Your task to perform on an android device: What is the recent news? Image 0: 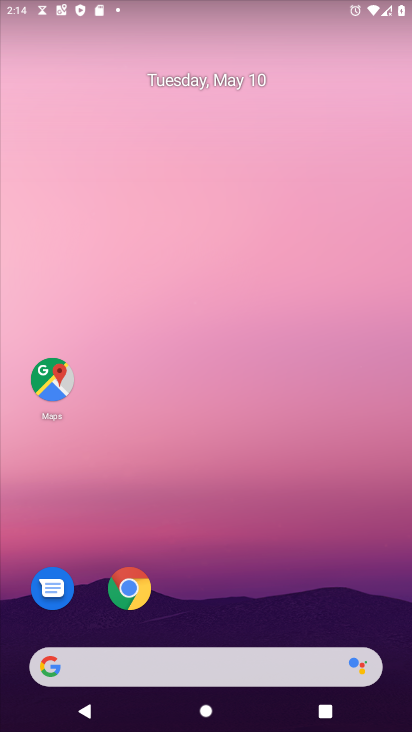
Step 0: drag from (201, 472) to (206, 324)
Your task to perform on an android device: What is the recent news? Image 1: 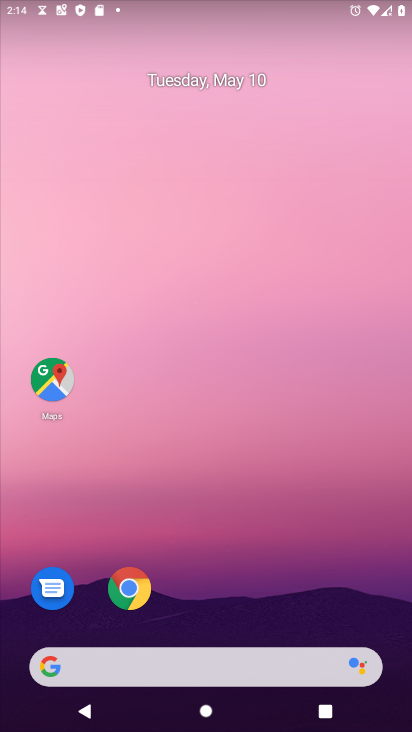
Step 1: drag from (238, 589) to (279, 248)
Your task to perform on an android device: What is the recent news? Image 2: 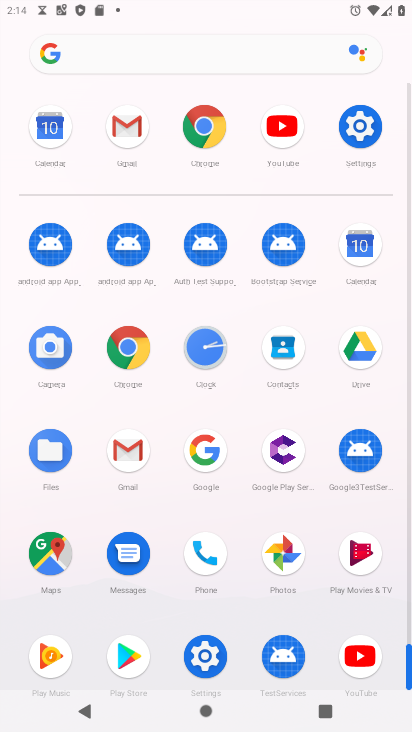
Step 2: click (203, 125)
Your task to perform on an android device: What is the recent news? Image 3: 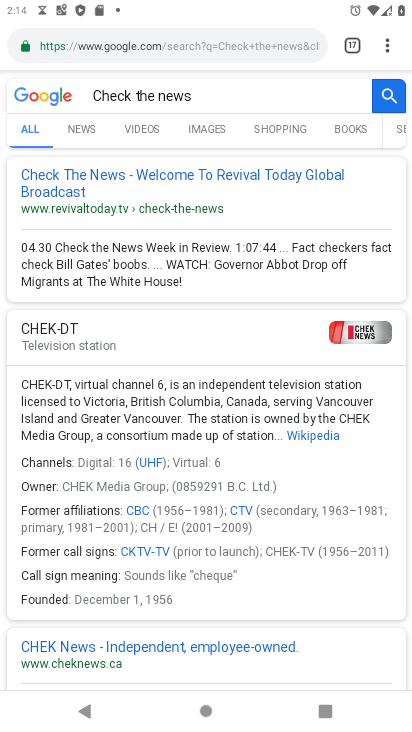
Step 3: click (381, 43)
Your task to perform on an android device: What is the recent news? Image 4: 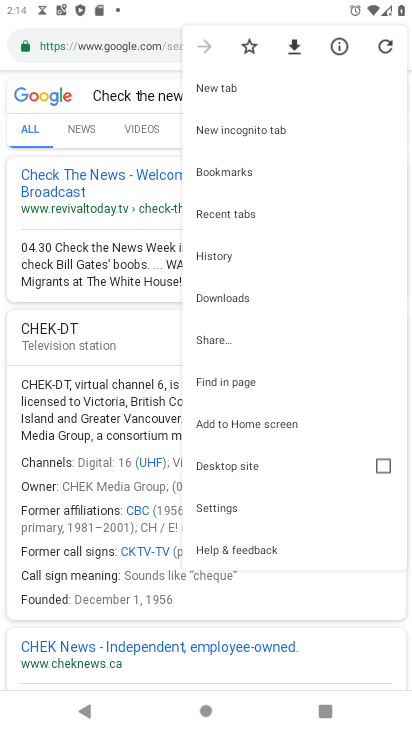
Step 4: click (243, 95)
Your task to perform on an android device: What is the recent news? Image 5: 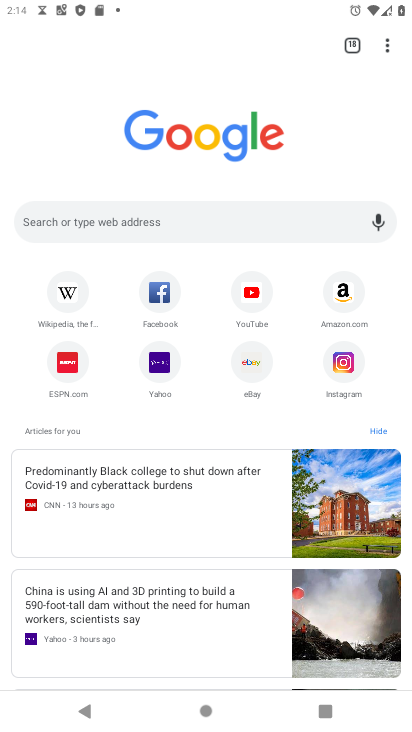
Step 5: click (149, 207)
Your task to perform on an android device: What is the recent news? Image 6: 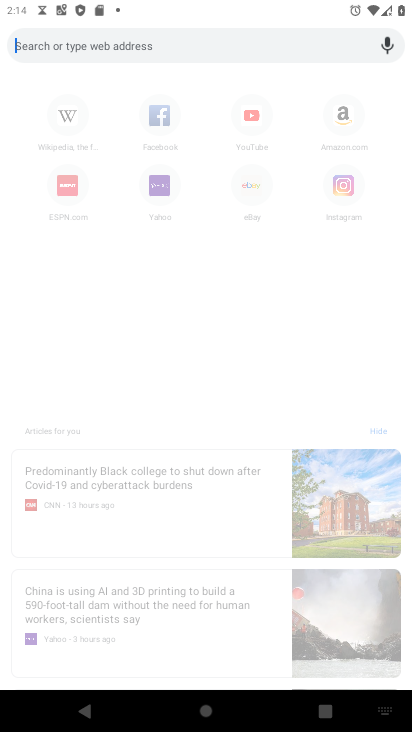
Step 6: click (240, 38)
Your task to perform on an android device: What is the recent news? Image 7: 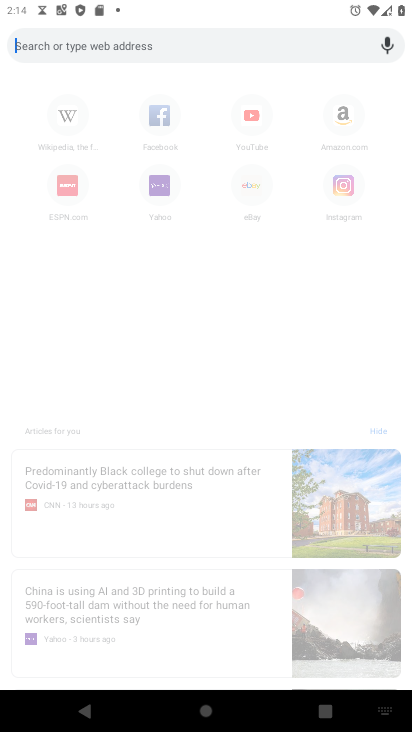
Step 7: type "What is the recent news?"
Your task to perform on an android device: What is the recent news? Image 8: 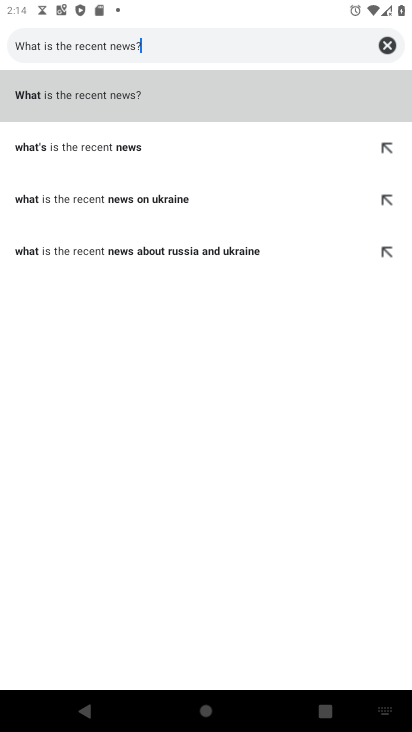
Step 8: click (125, 143)
Your task to perform on an android device: What is the recent news? Image 9: 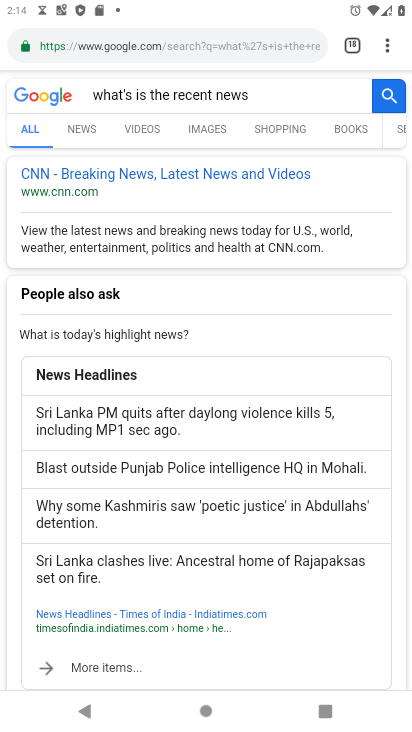
Step 9: task complete